Your task to perform on an android device: Do I have any events this weekend? Image 0: 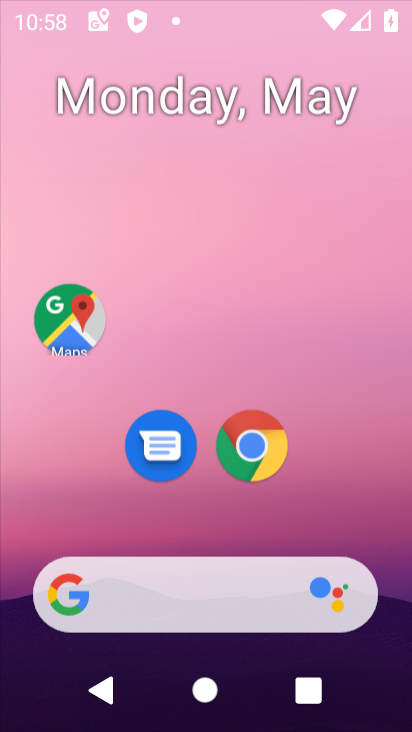
Step 0: click (298, 11)
Your task to perform on an android device: Do I have any events this weekend? Image 1: 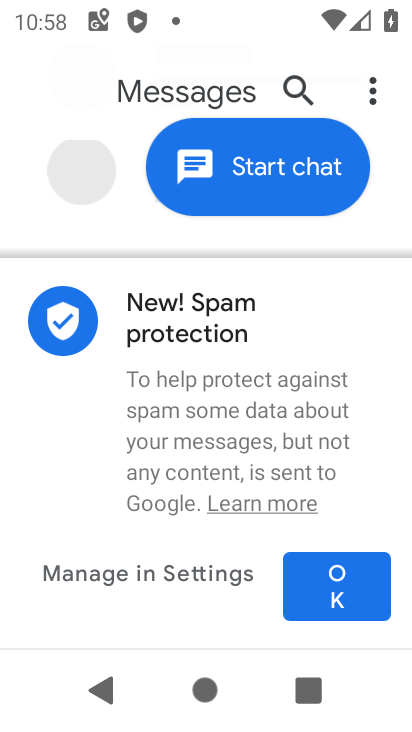
Step 1: press home button
Your task to perform on an android device: Do I have any events this weekend? Image 2: 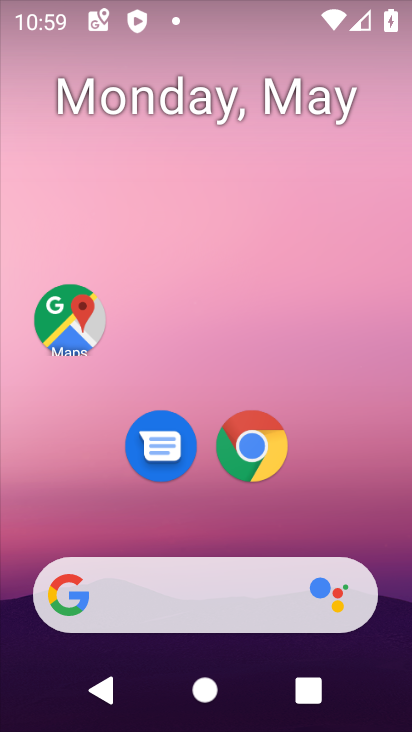
Step 2: drag from (341, 475) to (267, 35)
Your task to perform on an android device: Do I have any events this weekend? Image 3: 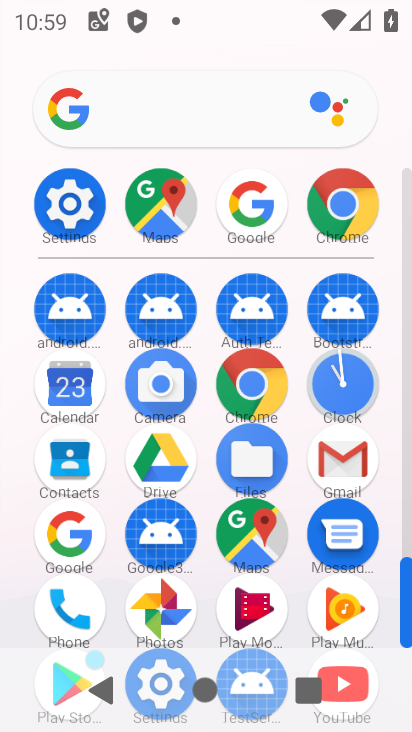
Step 3: click (92, 386)
Your task to perform on an android device: Do I have any events this weekend? Image 4: 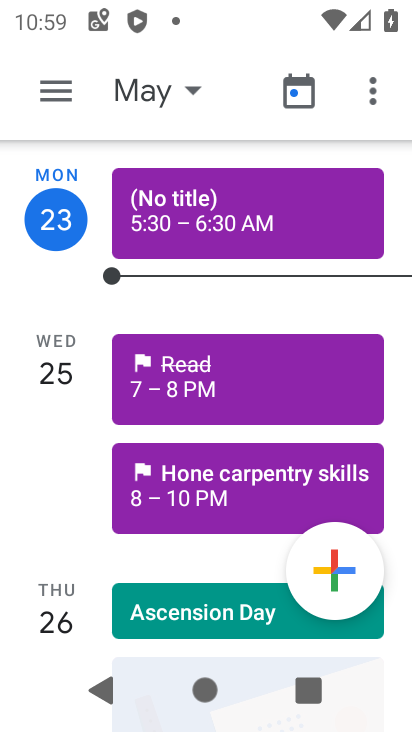
Step 4: click (121, 63)
Your task to perform on an android device: Do I have any events this weekend? Image 5: 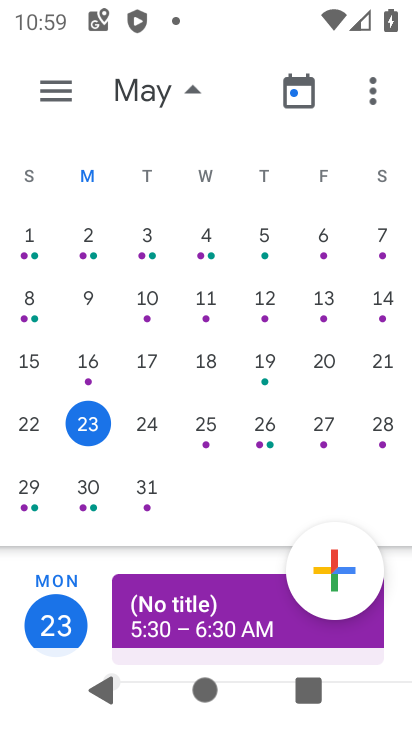
Step 5: click (204, 422)
Your task to perform on an android device: Do I have any events this weekend? Image 6: 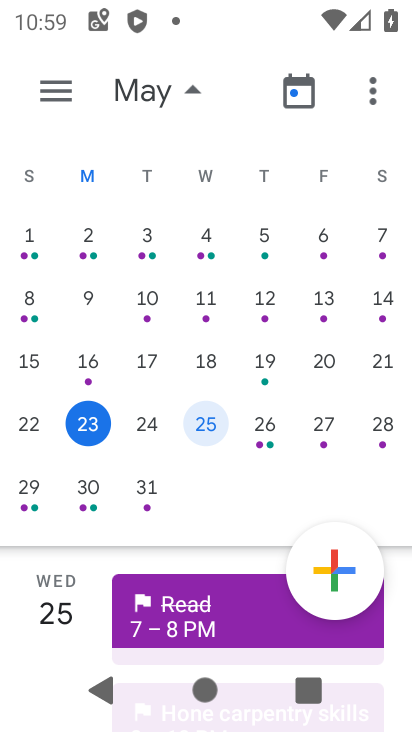
Step 6: task complete